Your task to perform on an android device: Open Android settings Image 0: 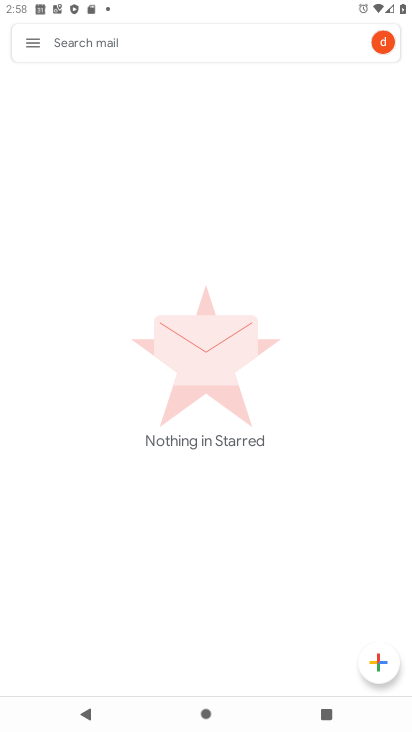
Step 0: press home button
Your task to perform on an android device: Open Android settings Image 1: 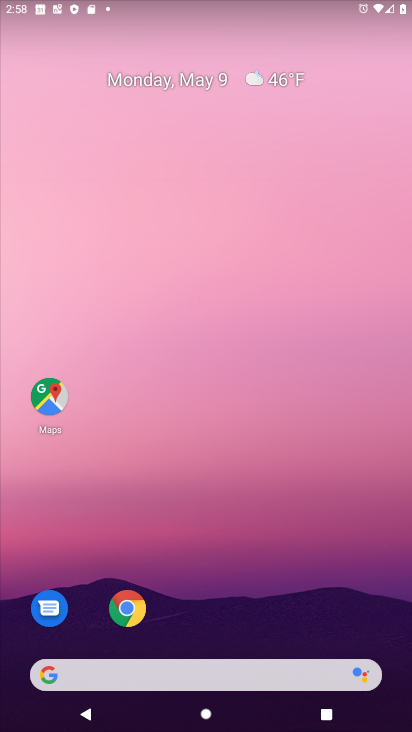
Step 1: drag from (232, 590) to (304, 92)
Your task to perform on an android device: Open Android settings Image 2: 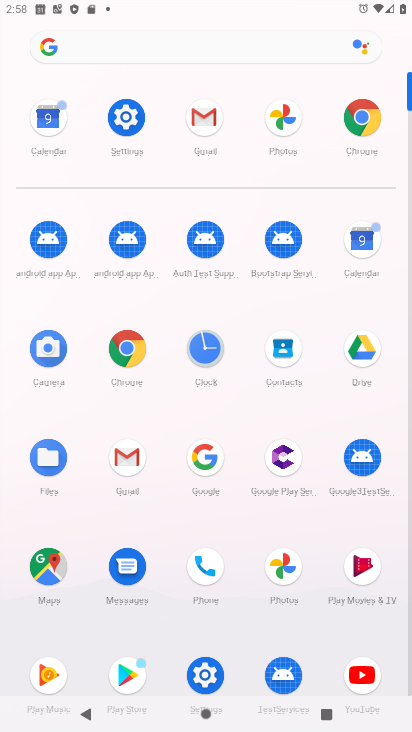
Step 2: click (126, 119)
Your task to perform on an android device: Open Android settings Image 3: 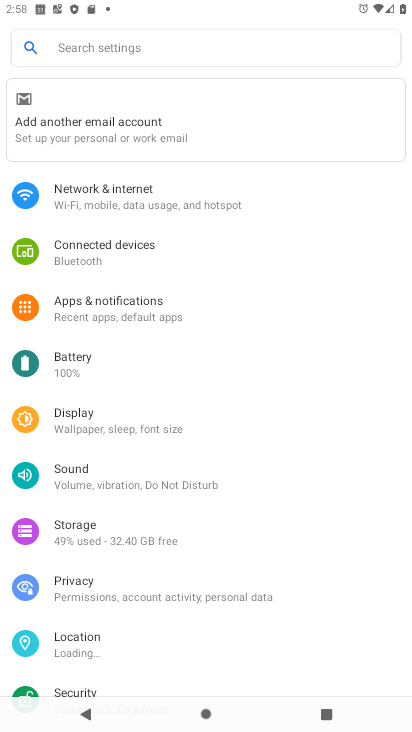
Step 3: drag from (187, 516) to (274, 5)
Your task to perform on an android device: Open Android settings Image 4: 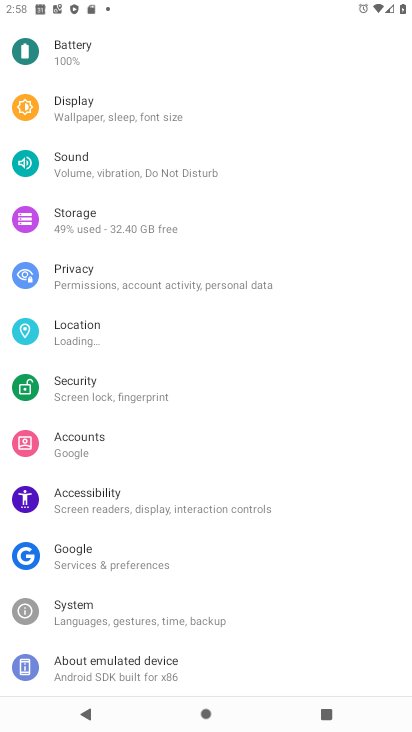
Step 4: drag from (190, 484) to (259, 122)
Your task to perform on an android device: Open Android settings Image 5: 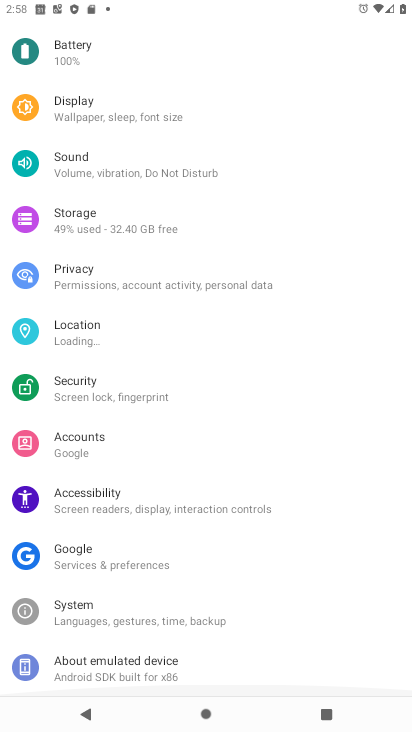
Step 5: click (137, 671)
Your task to perform on an android device: Open Android settings Image 6: 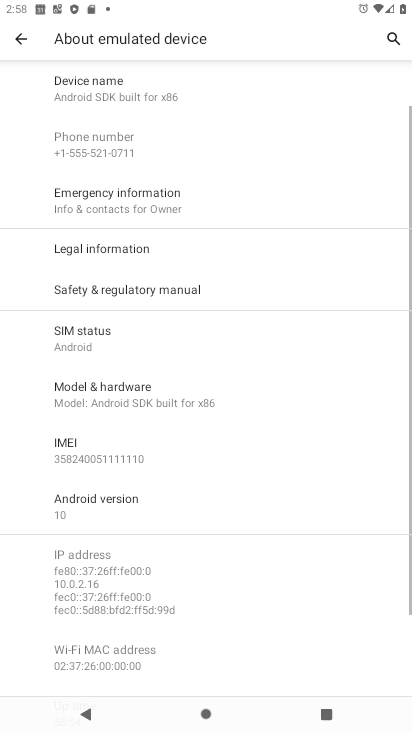
Step 6: click (137, 512)
Your task to perform on an android device: Open Android settings Image 7: 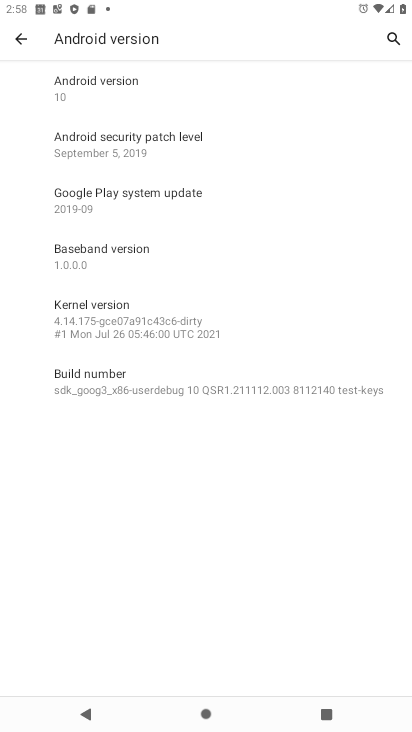
Step 7: task complete